Your task to perform on an android device: Open calendar and show me the first week of next month Image 0: 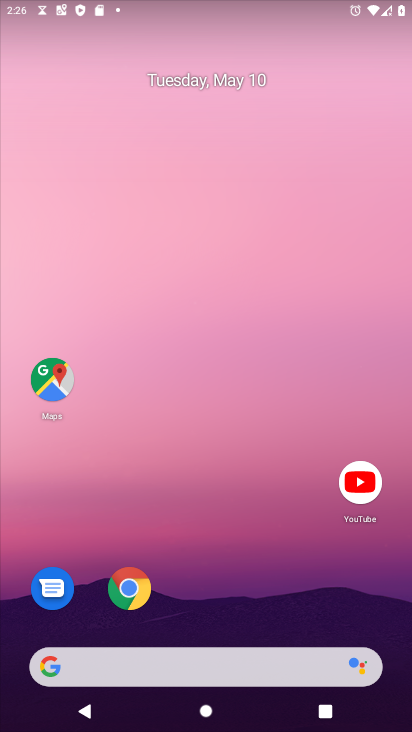
Step 0: drag from (236, 378) to (232, 249)
Your task to perform on an android device: Open calendar and show me the first week of next month Image 1: 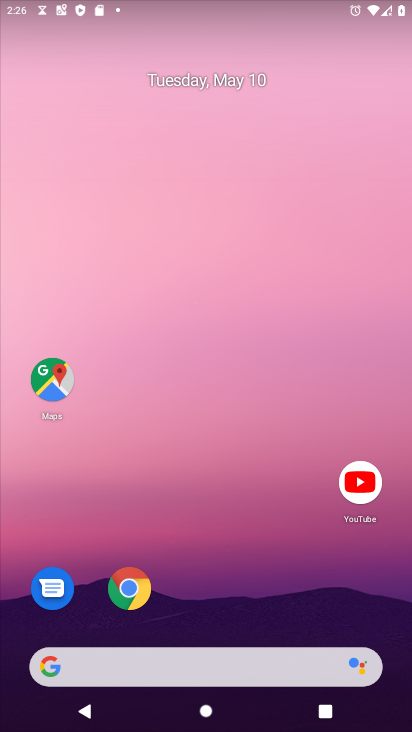
Step 1: drag from (199, 605) to (250, 185)
Your task to perform on an android device: Open calendar and show me the first week of next month Image 2: 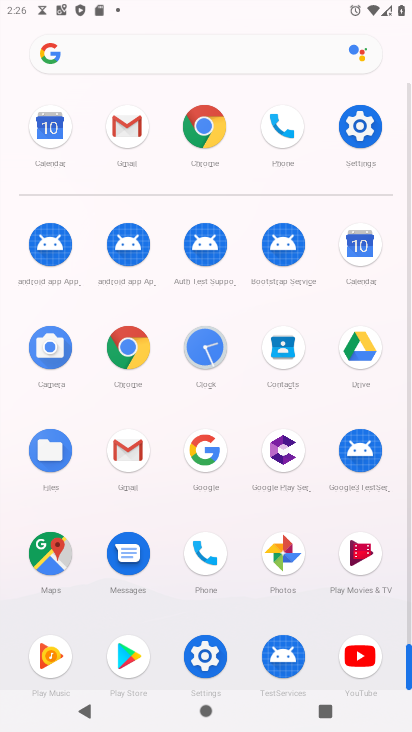
Step 2: click (364, 240)
Your task to perform on an android device: Open calendar and show me the first week of next month Image 3: 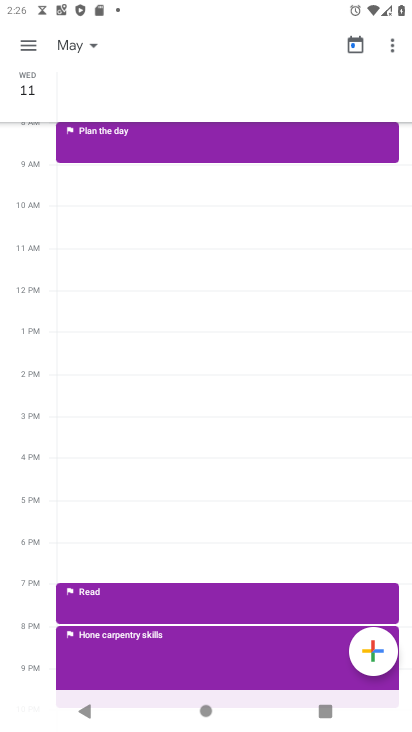
Step 3: click (25, 48)
Your task to perform on an android device: Open calendar and show me the first week of next month Image 4: 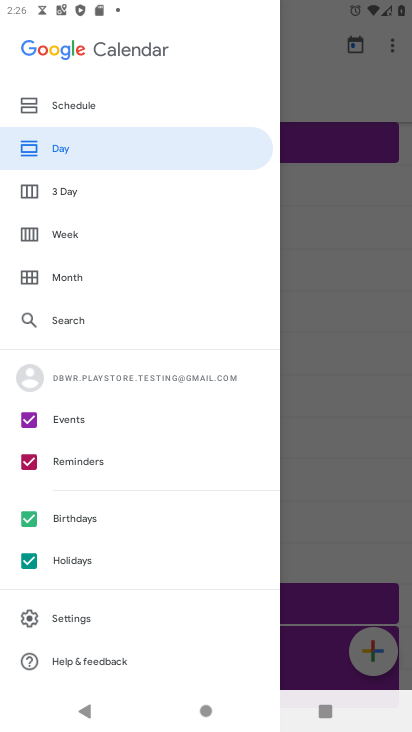
Step 4: click (89, 276)
Your task to perform on an android device: Open calendar and show me the first week of next month Image 5: 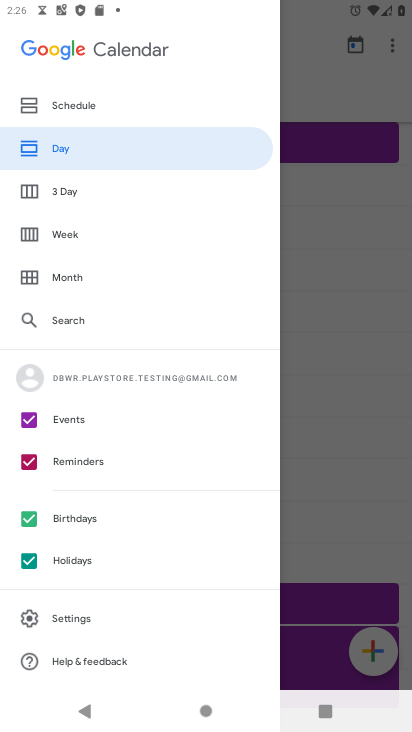
Step 5: click (95, 269)
Your task to perform on an android device: Open calendar and show me the first week of next month Image 6: 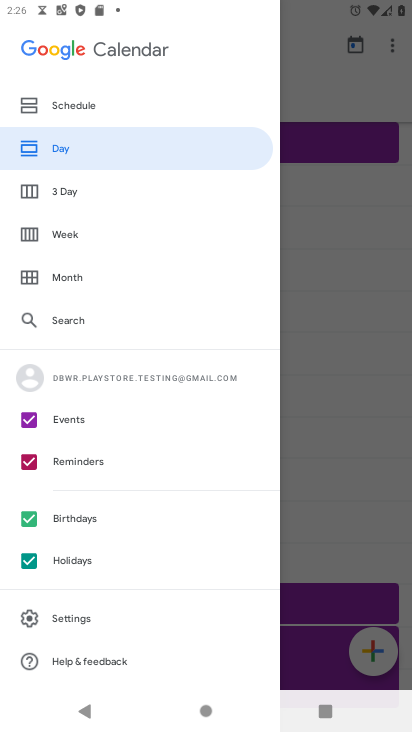
Step 6: click (74, 273)
Your task to perform on an android device: Open calendar and show me the first week of next month Image 7: 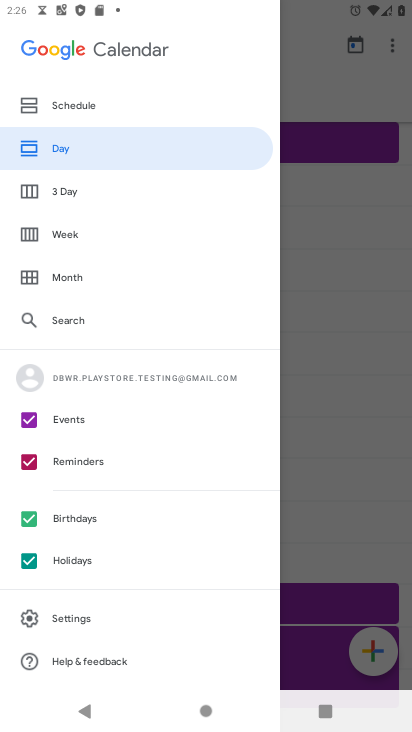
Step 7: click (74, 273)
Your task to perform on an android device: Open calendar and show me the first week of next month Image 8: 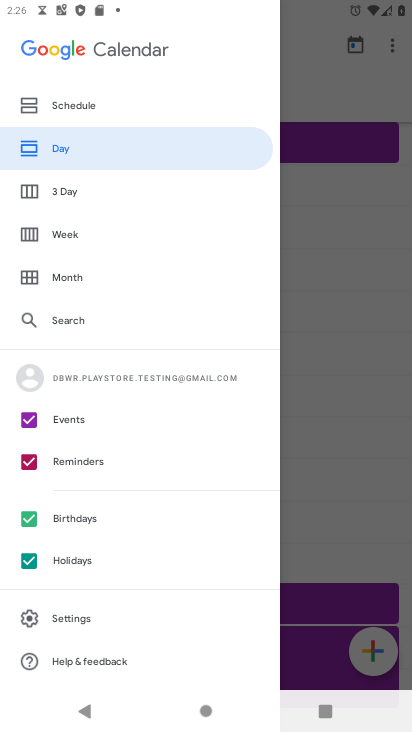
Step 8: click (74, 273)
Your task to perform on an android device: Open calendar and show me the first week of next month Image 9: 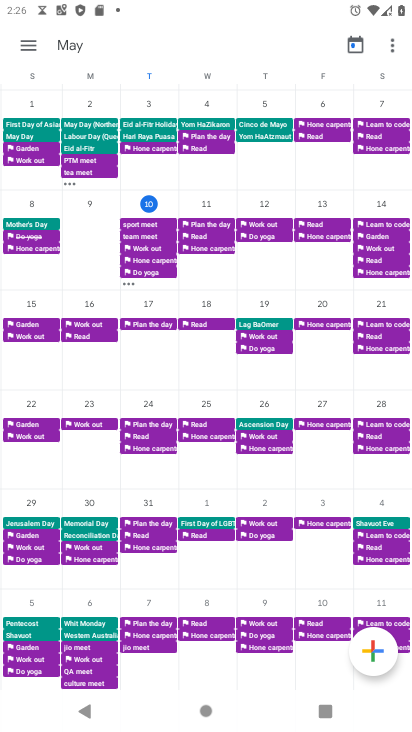
Step 9: task complete